Your task to perform on an android device: Open the web browser Image 0: 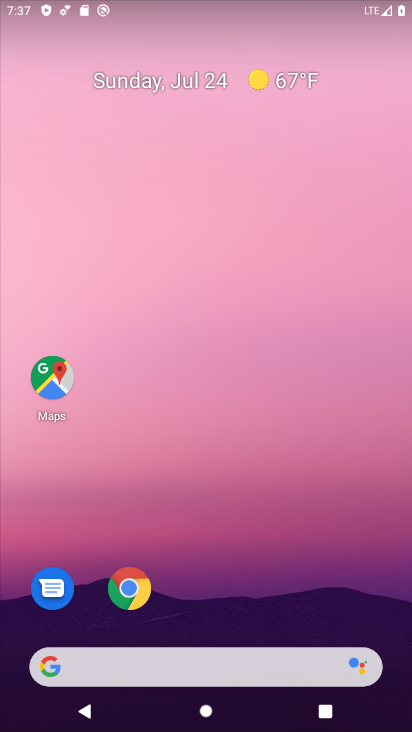
Step 0: drag from (332, 578) to (351, 185)
Your task to perform on an android device: Open the web browser Image 1: 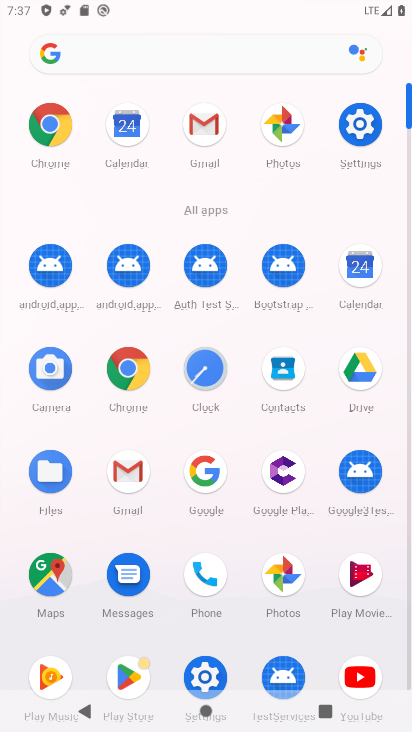
Step 1: click (114, 369)
Your task to perform on an android device: Open the web browser Image 2: 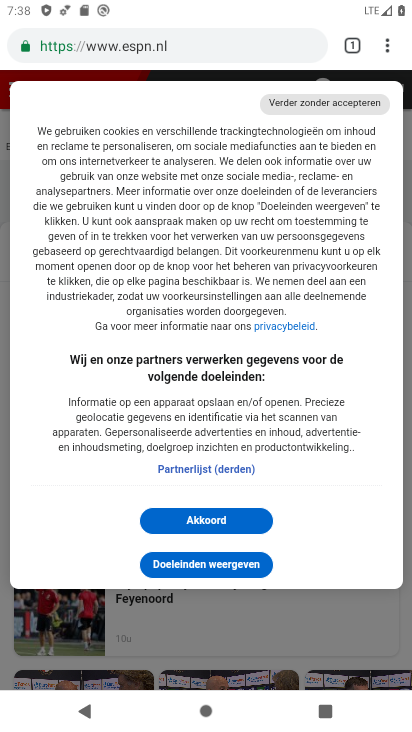
Step 2: task complete